Your task to perform on an android device: Search for Mexican restaurants on Maps Image 0: 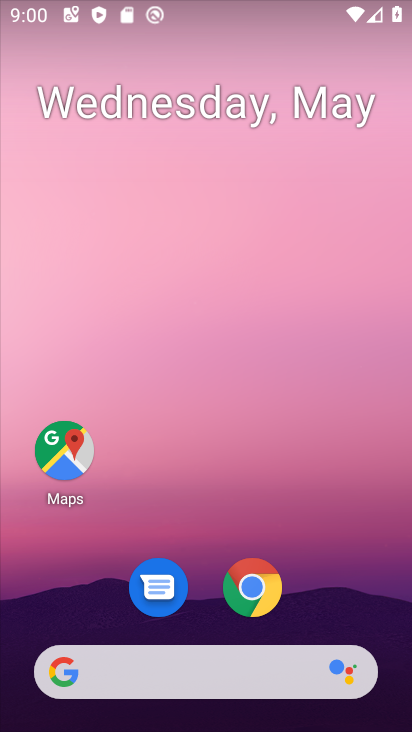
Step 0: drag from (163, 722) to (109, 141)
Your task to perform on an android device: Search for Mexican restaurants on Maps Image 1: 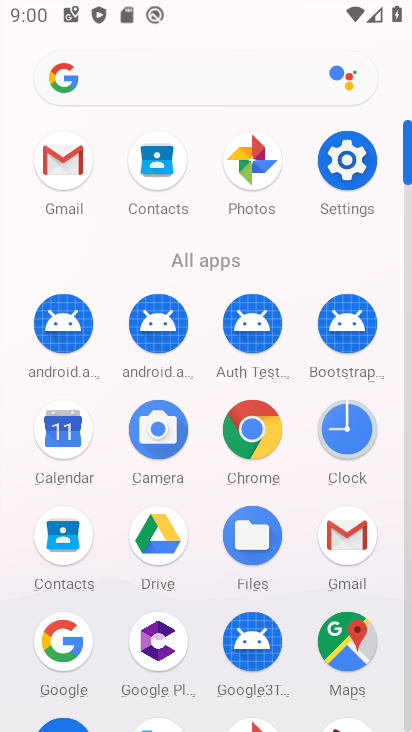
Step 1: click (345, 632)
Your task to perform on an android device: Search for Mexican restaurants on Maps Image 2: 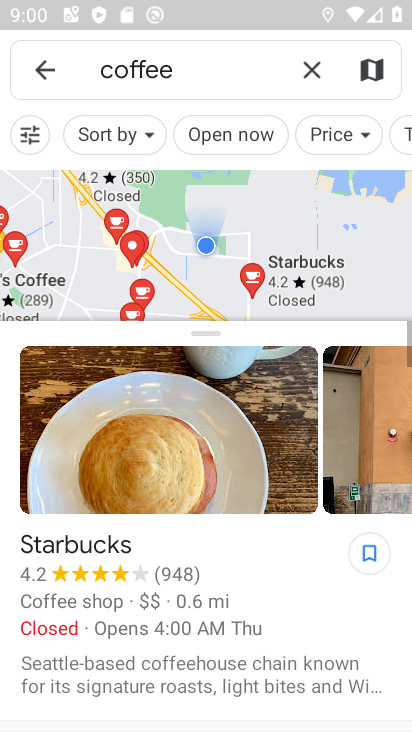
Step 2: click (315, 67)
Your task to perform on an android device: Search for Mexican restaurants on Maps Image 3: 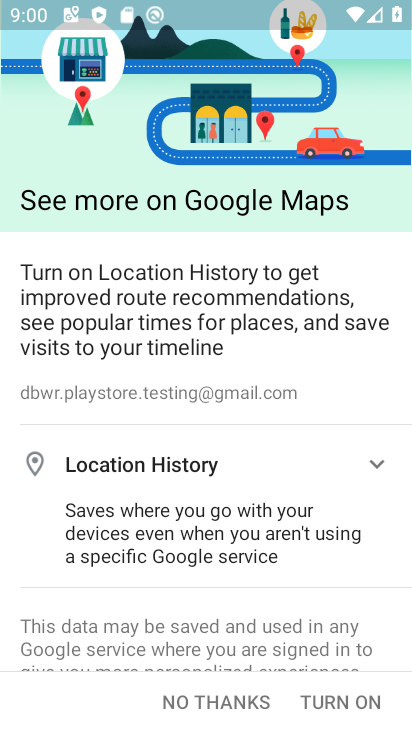
Step 3: click (256, 698)
Your task to perform on an android device: Search for Mexican restaurants on Maps Image 4: 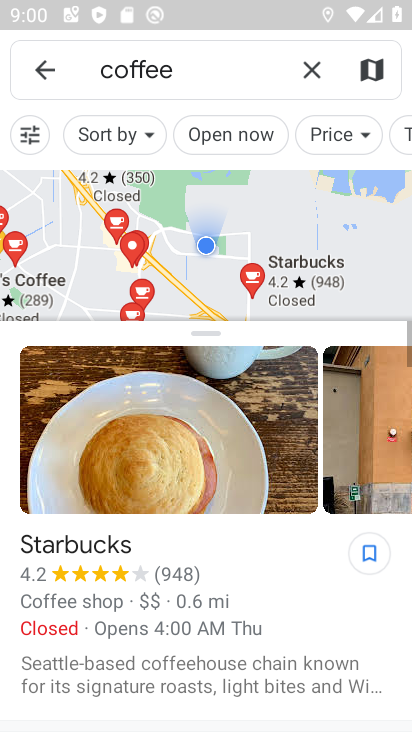
Step 4: click (313, 65)
Your task to perform on an android device: Search for Mexican restaurants on Maps Image 5: 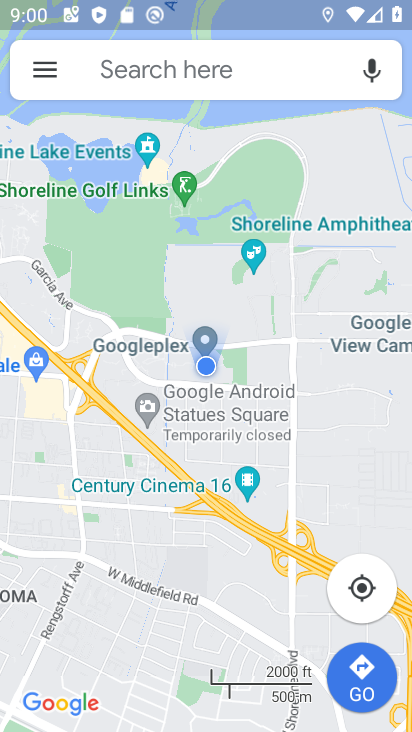
Step 5: click (167, 71)
Your task to perform on an android device: Search for Mexican restaurants on Maps Image 6: 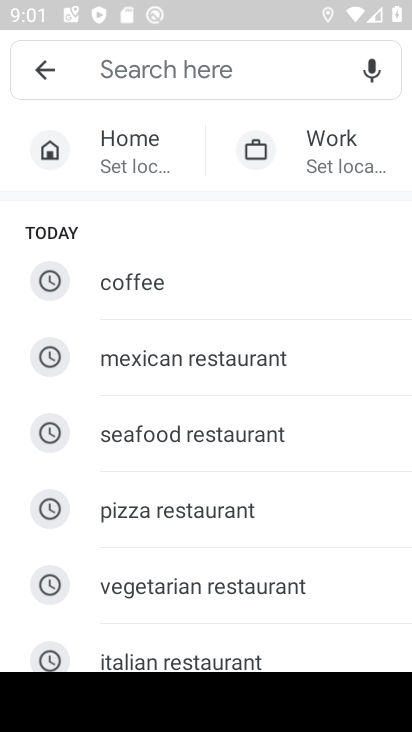
Step 6: type "Mexican restaurnats"
Your task to perform on an android device: Search for Mexican restaurants on Maps Image 7: 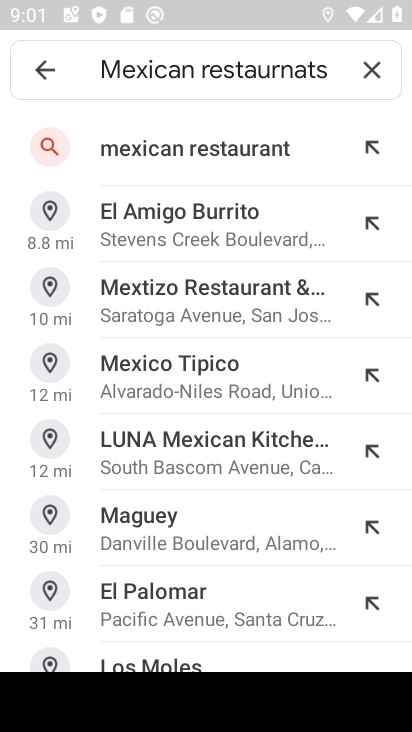
Step 7: click (222, 149)
Your task to perform on an android device: Search for Mexican restaurants on Maps Image 8: 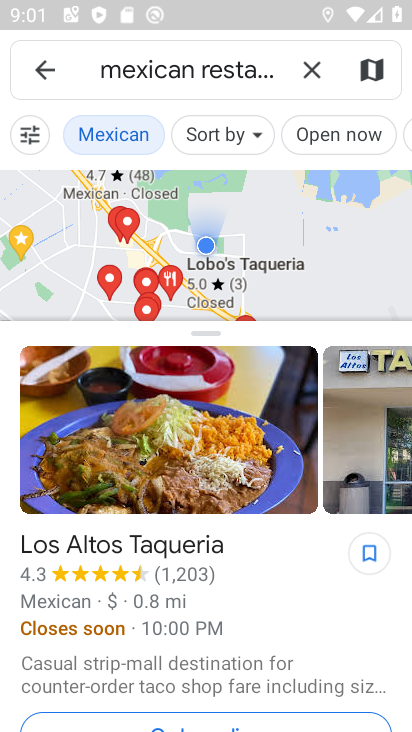
Step 8: task complete